Your task to perform on an android device: open the mobile data screen to see how much data has been used Image 0: 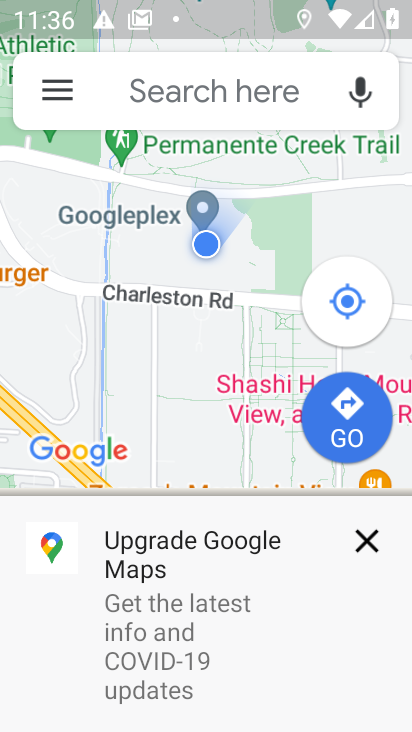
Step 0: press home button
Your task to perform on an android device: open the mobile data screen to see how much data has been used Image 1: 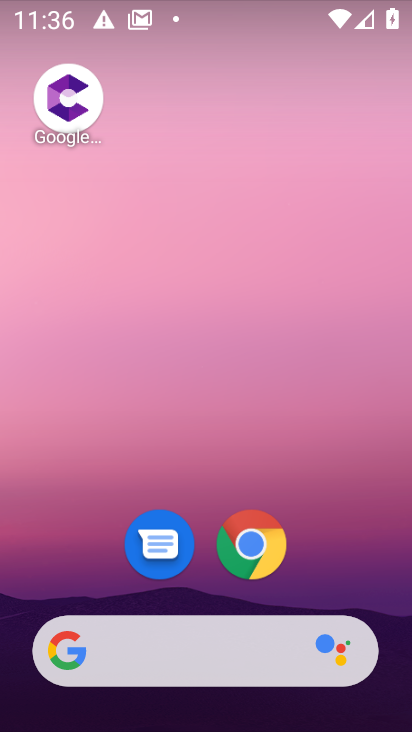
Step 1: drag from (374, 663) to (368, 112)
Your task to perform on an android device: open the mobile data screen to see how much data has been used Image 2: 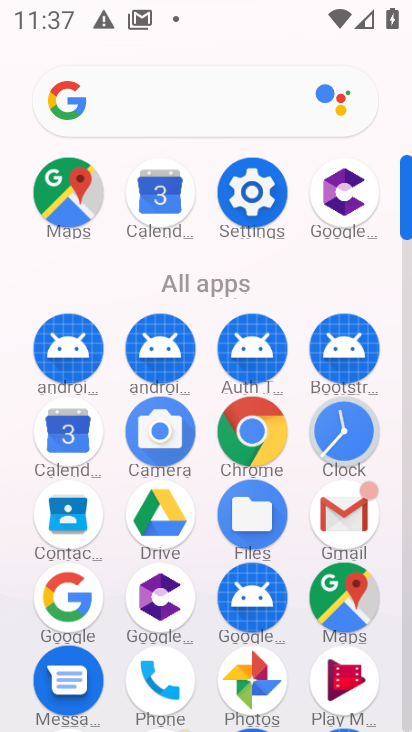
Step 2: click (254, 204)
Your task to perform on an android device: open the mobile data screen to see how much data has been used Image 3: 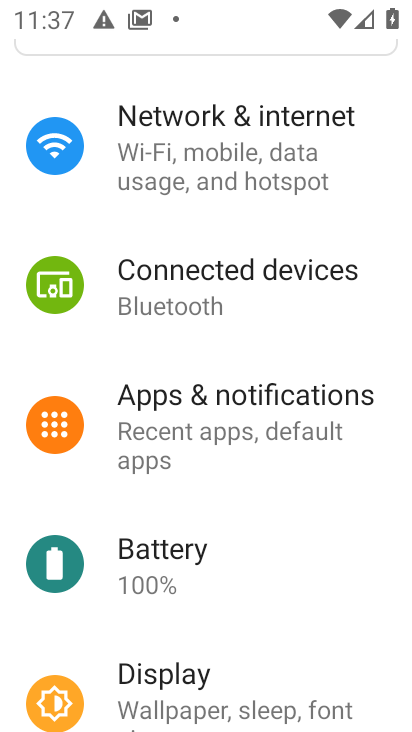
Step 3: click (231, 127)
Your task to perform on an android device: open the mobile data screen to see how much data has been used Image 4: 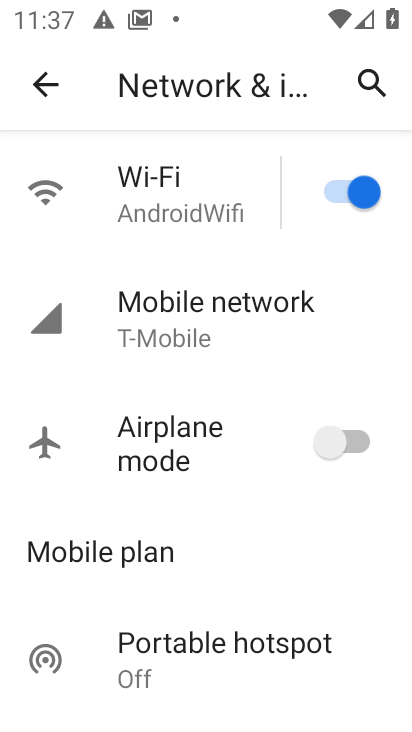
Step 4: click (167, 309)
Your task to perform on an android device: open the mobile data screen to see how much data has been used Image 5: 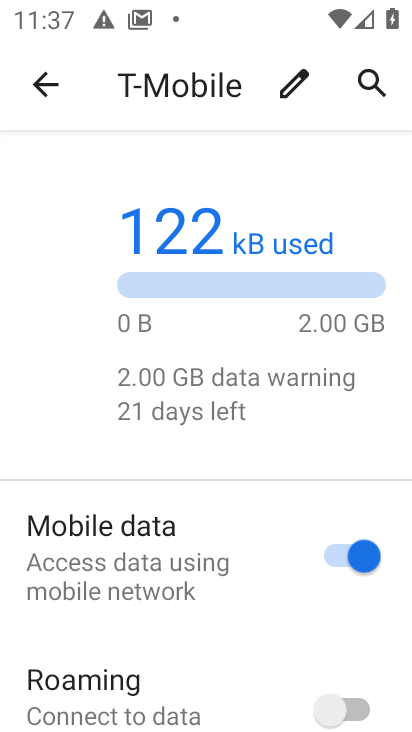
Step 5: task complete